Your task to perform on an android device: Check the news Image 0: 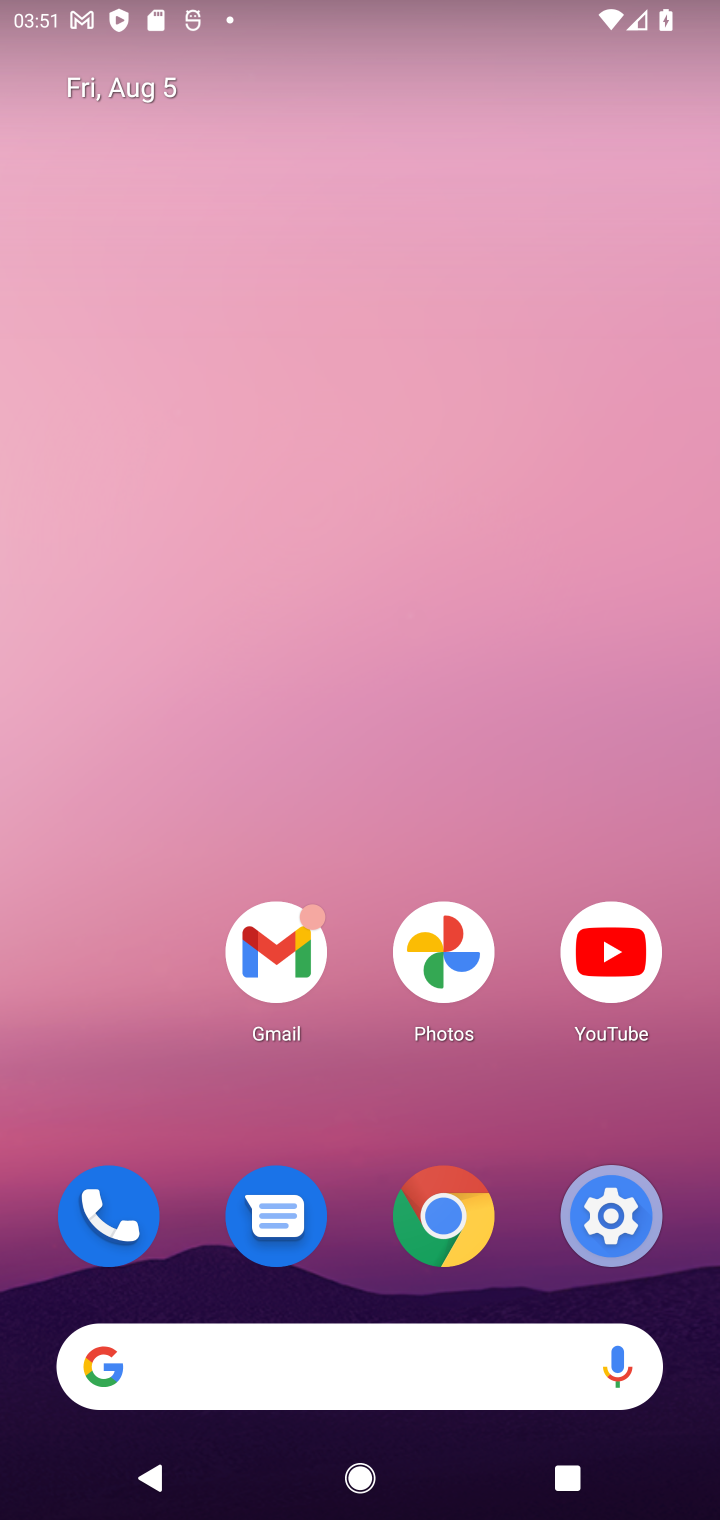
Step 0: click (369, 1364)
Your task to perform on an android device: Check the news Image 1: 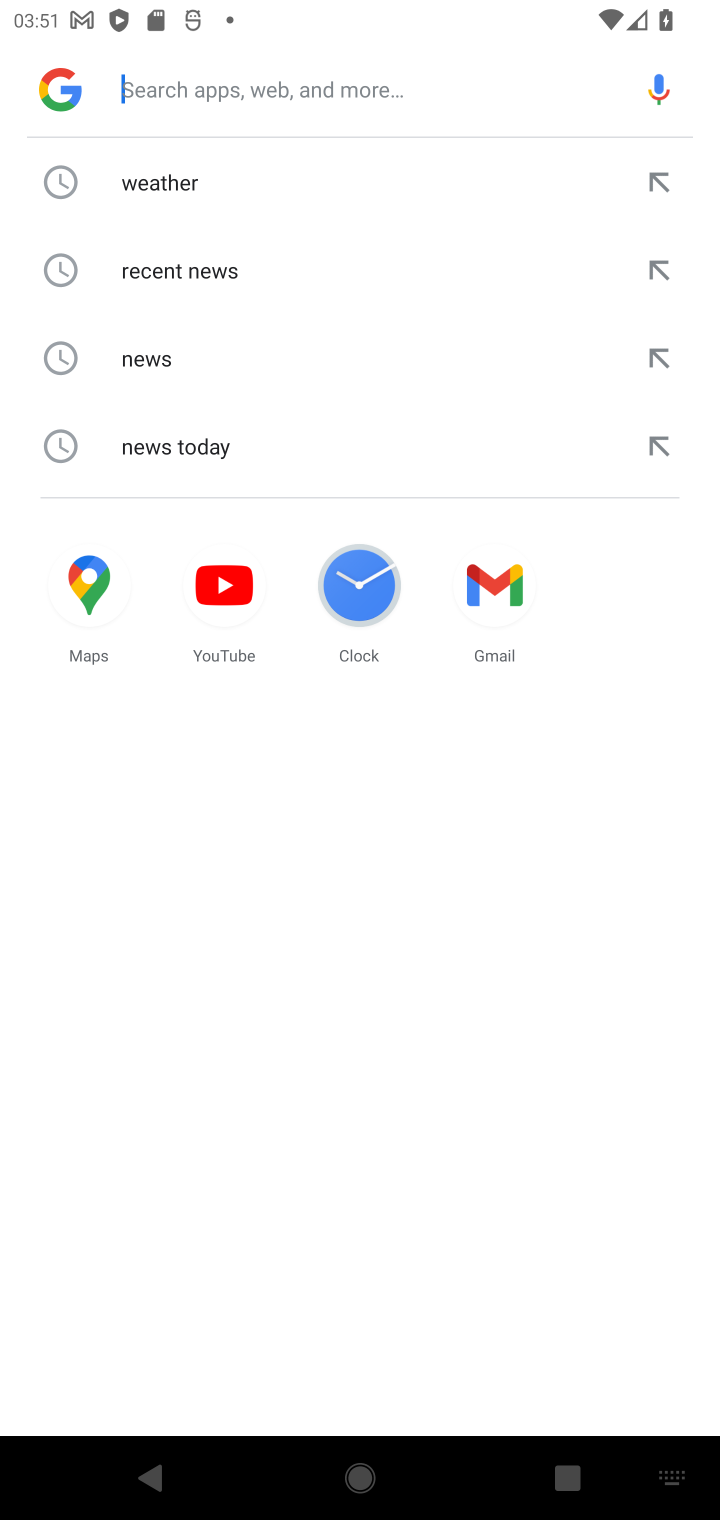
Step 1: type "check the news"
Your task to perform on an android device: Check the news Image 2: 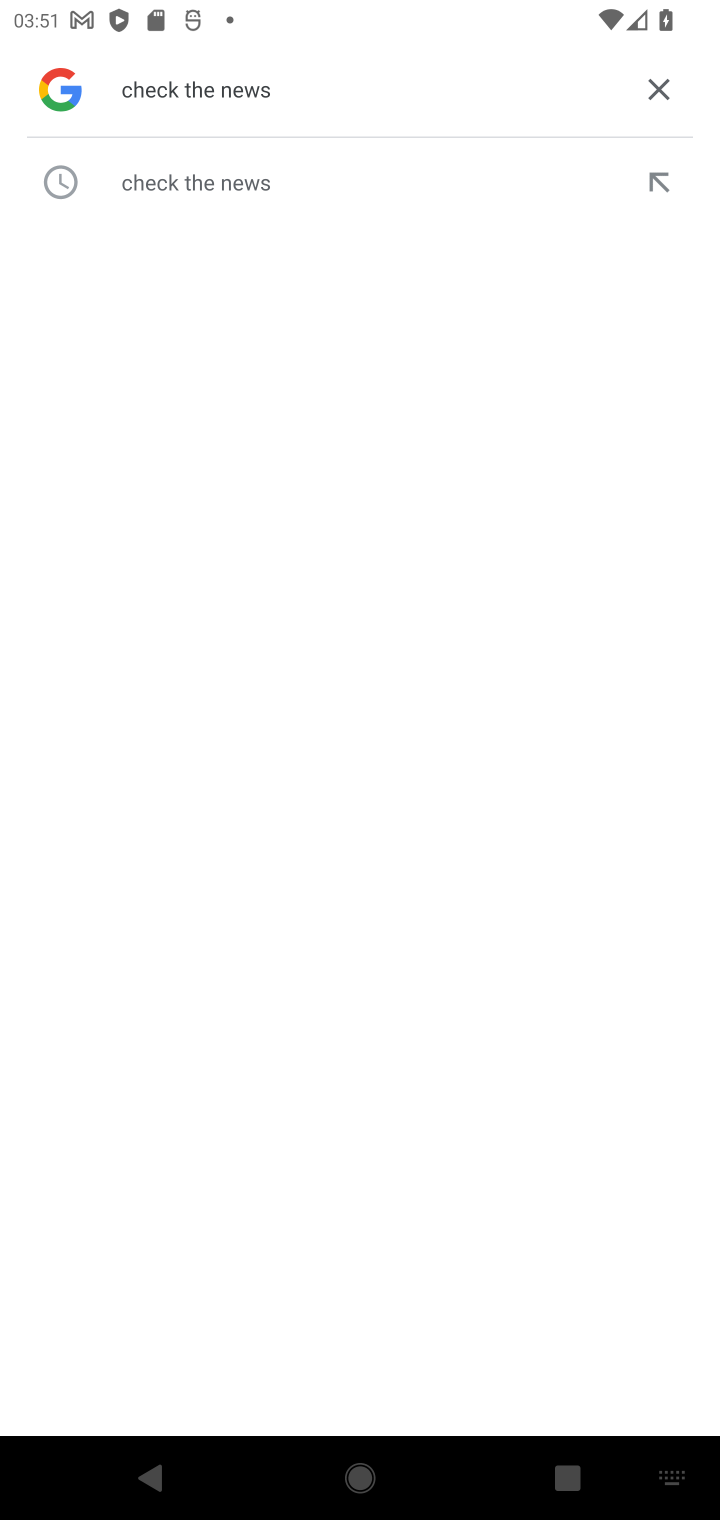
Step 2: click (369, 179)
Your task to perform on an android device: Check the news Image 3: 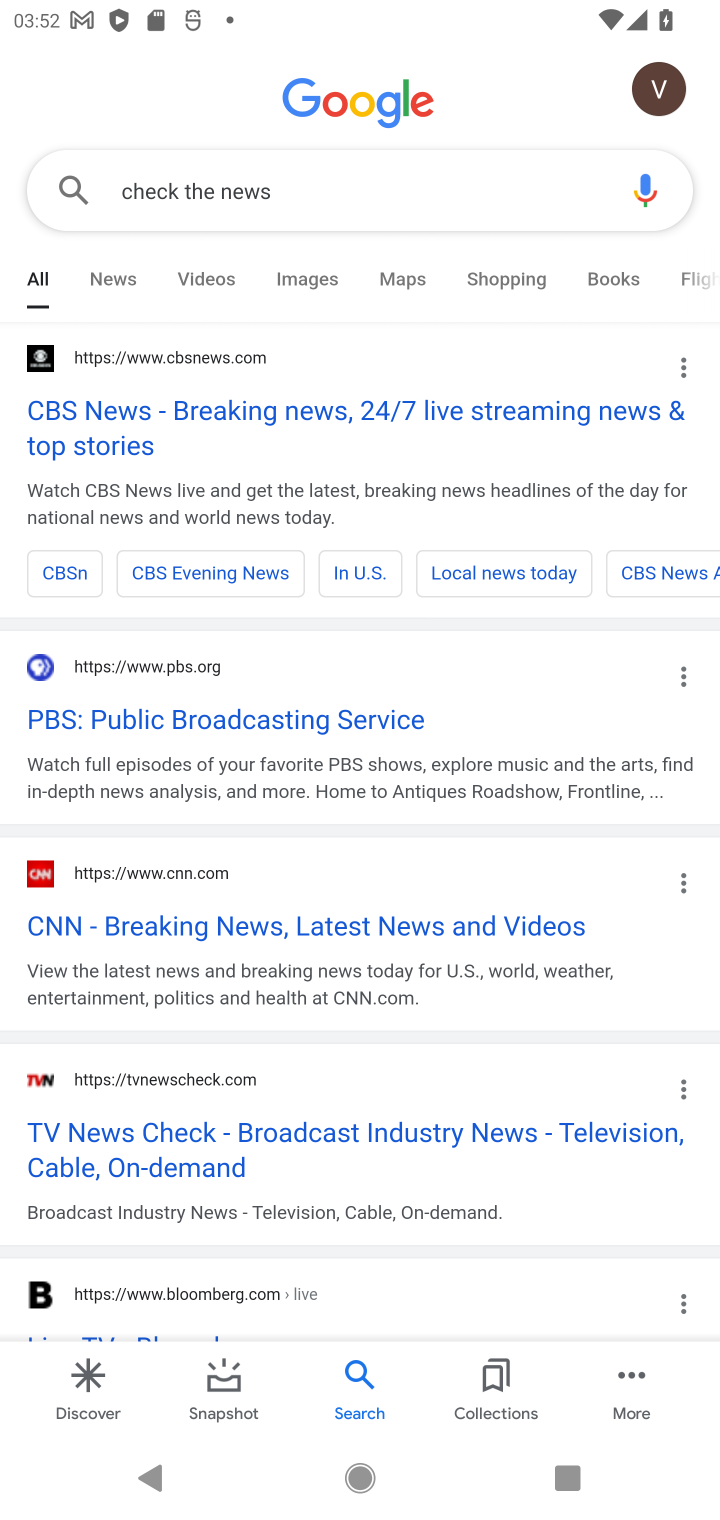
Step 3: task complete